Your task to perform on an android device: Go to calendar. Show me events next week Image 0: 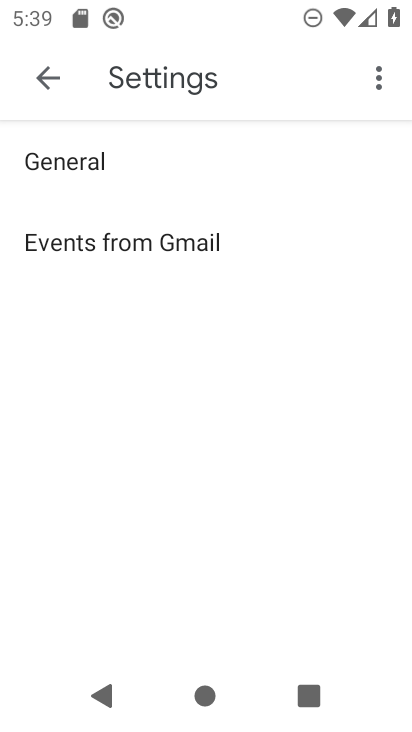
Step 0: press home button
Your task to perform on an android device: Go to calendar. Show me events next week Image 1: 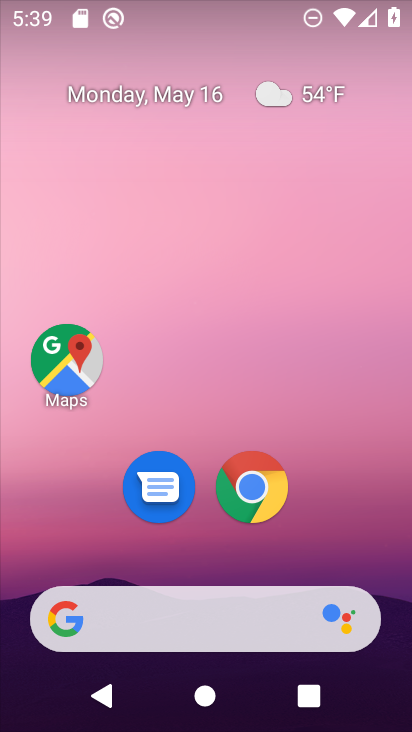
Step 1: drag from (221, 589) to (187, 246)
Your task to perform on an android device: Go to calendar. Show me events next week Image 2: 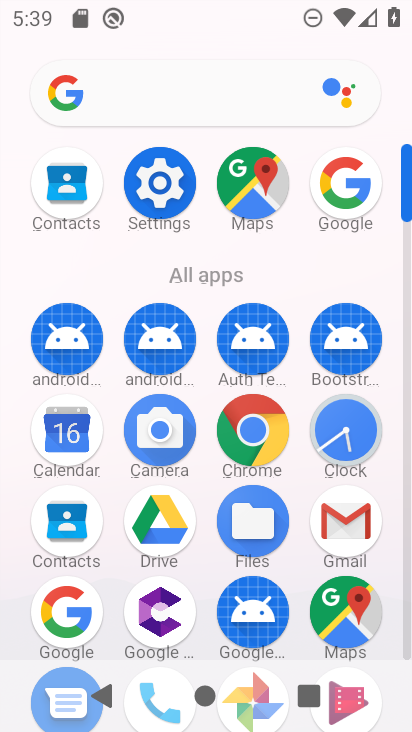
Step 2: click (46, 433)
Your task to perform on an android device: Go to calendar. Show me events next week Image 3: 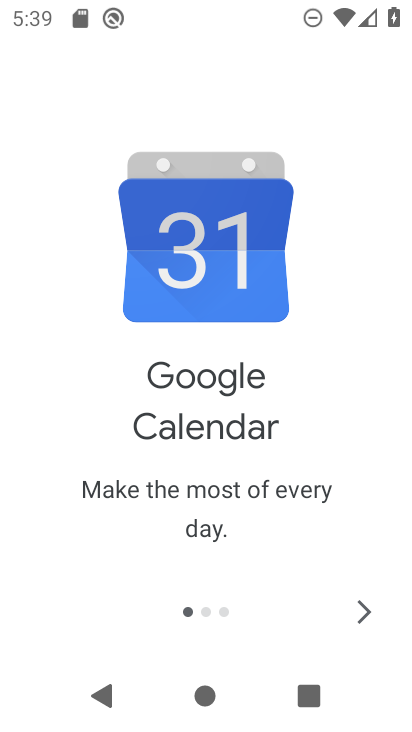
Step 3: click (357, 615)
Your task to perform on an android device: Go to calendar. Show me events next week Image 4: 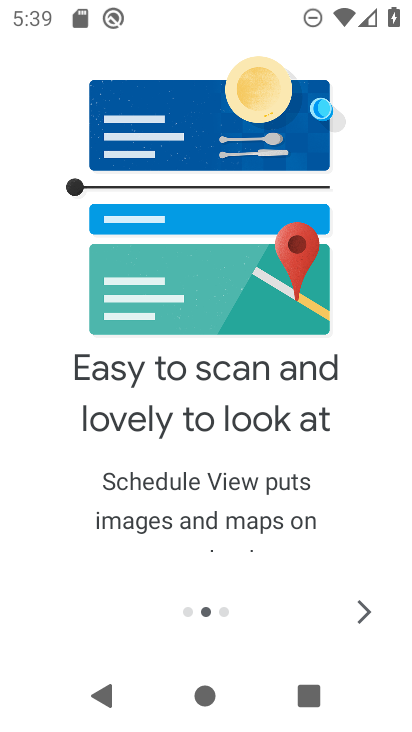
Step 4: click (358, 614)
Your task to perform on an android device: Go to calendar. Show me events next week Image 5: 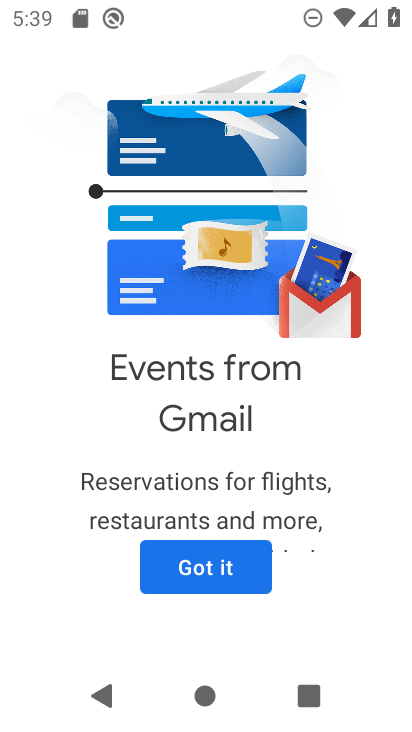
Step 5: click (221, 557)
Your task to perform on an android device: Go to calendar. Show me events next week Image 6: 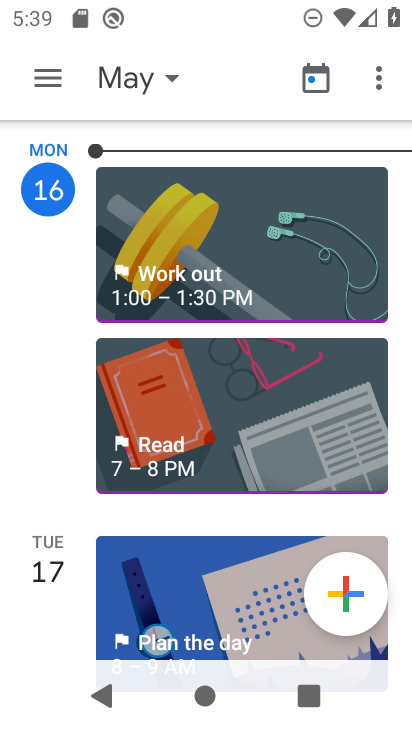
Step 6: click (119, 77)
Your task to perform on an android device: Go to calendar. Show me events next week Image 7: 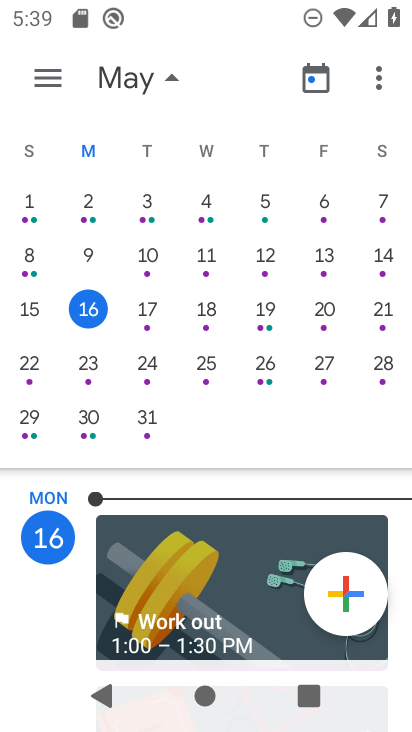
Step 7: click (22, 423)
Your task to perform on an android device: Go to calendar. Show me events next week Image 8: 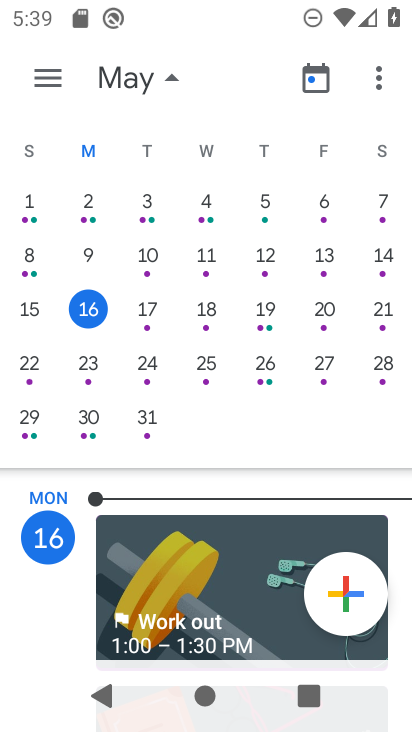
Step 8: click (39, 415)
Your task to perform on an android device: Go to calendar. Show me events next week Image 9: 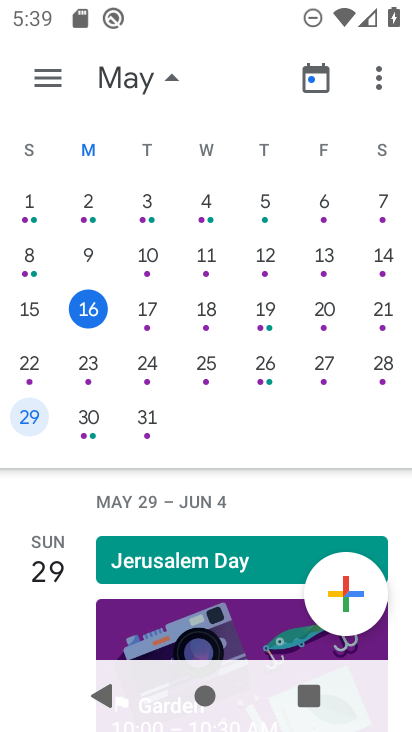
Step 9: task complete